Your task to perform on an android device: Open battery settings Image 0: 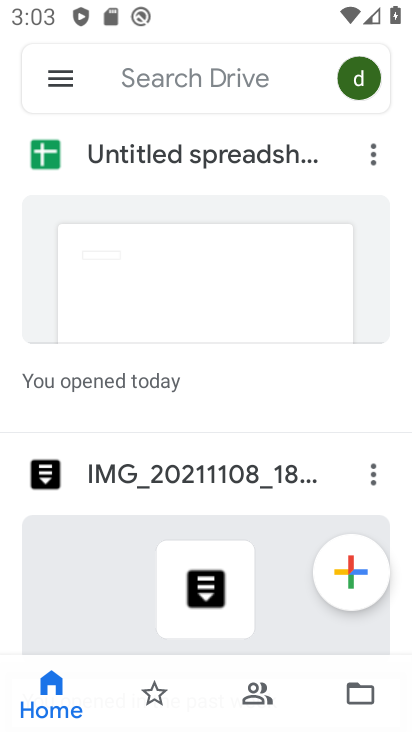
Step 0: press home button
Your task to perform on an android device: Open battery settings Image 1: 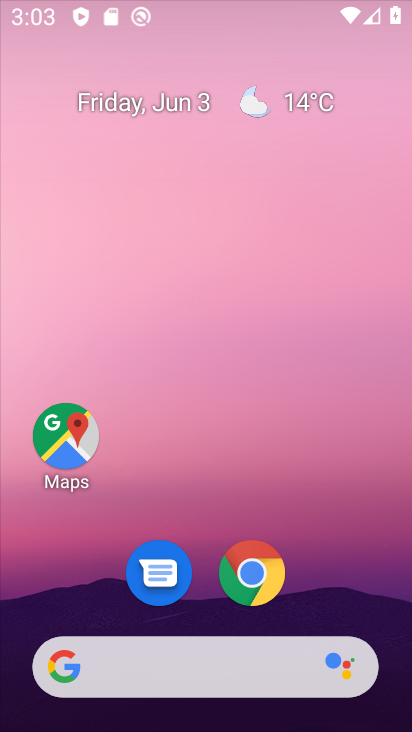
Step 1: drag from (312, 660) to (300, 15)
Your task to perform on an android device: Open battery settings Image 2: 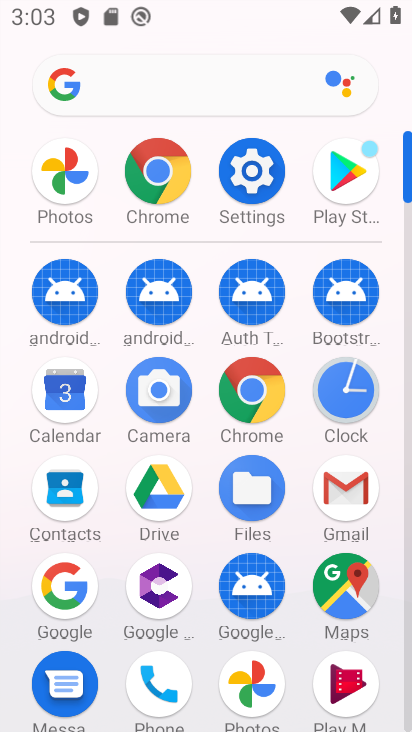
Step 2: click (258, 152)
Your task to perform on an android device: Open battery settings Image 3: 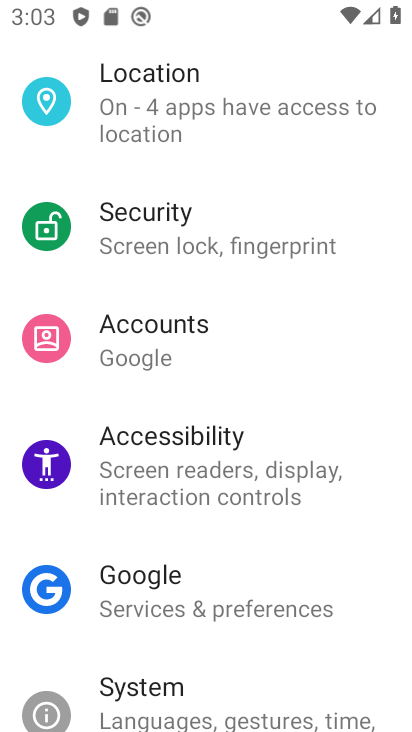
Step 3: drag from (250, 263) to (255, 731)
Your task to perform on an android device: Open battery settings Image 4: 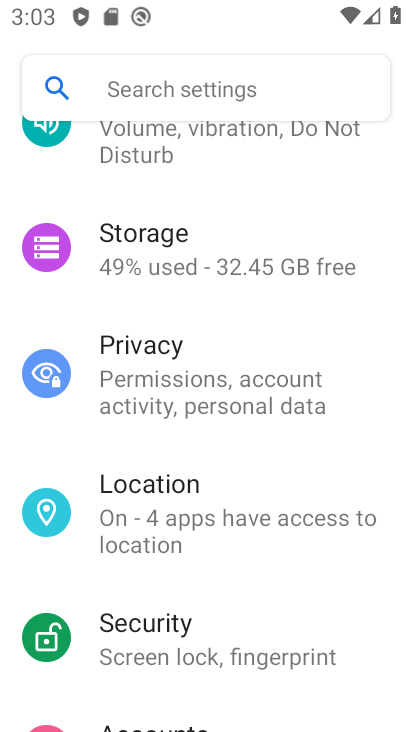
Step 4: drag from (242, 353) to (339, 730)
Your task to perform on an android device: Open battery settings Image 5: 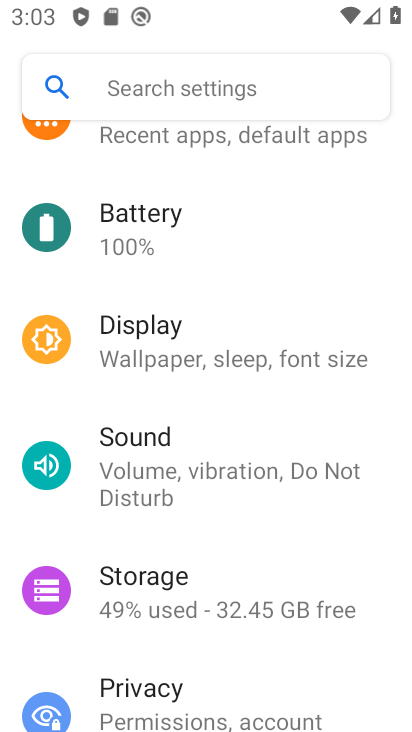
Step 5: click (206, 243)
Your task to perform on an android device: Open battery settings Image 6: 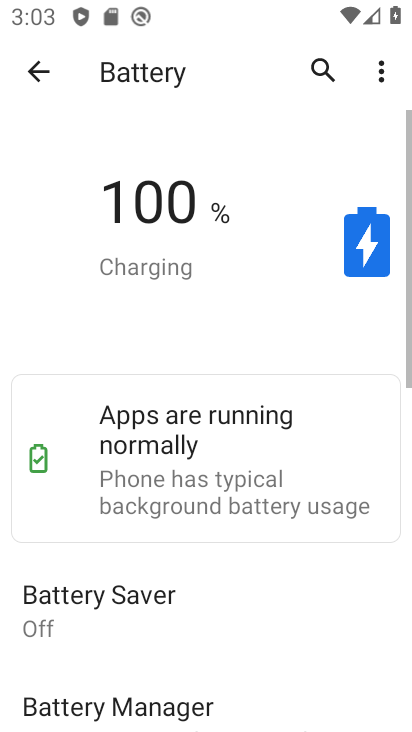
Step 6: task complete